Your task to perform on an android device: turn on the 24-hour format for clock Image 0: 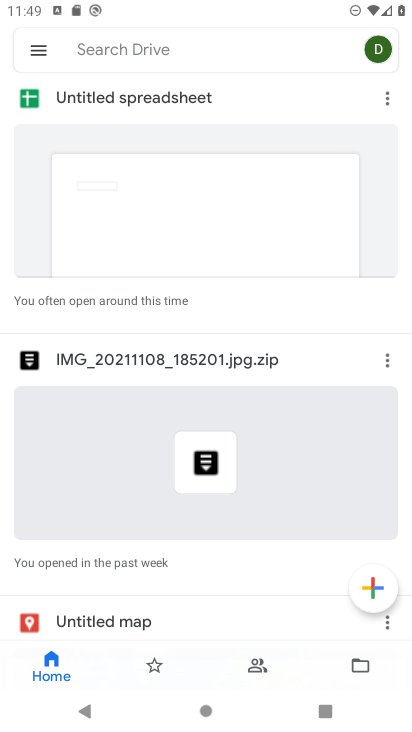
Step 0: press home button
Your task to perform on an android device: turn on the 24-hour format for clock Image 1: 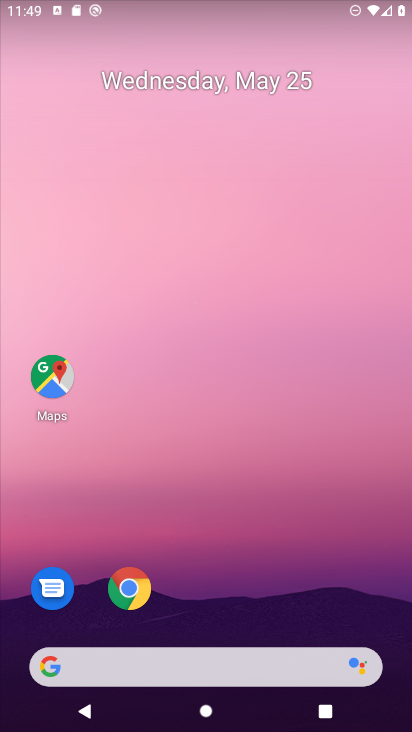
Step 1: drag from (47, 553) to (344, 78)
Your task to perform on an android device: turn on the 24-hour format for clock Image 2: 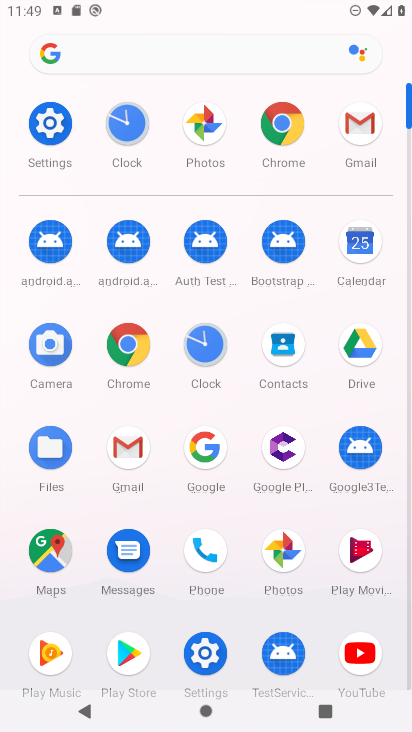
Step 2: click (54, 129)
Your task to perform on an android device: turn on the 24-hour format for clock Image 3: 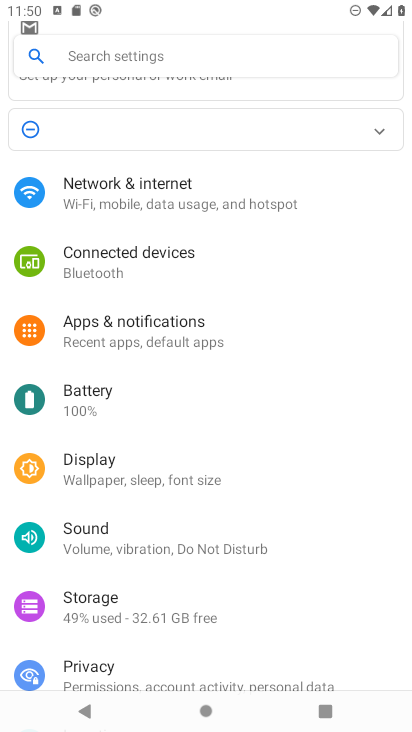
Step 3: press home button
Your task to perform on an android device: turn on the 24-hour format for clock Image 4: 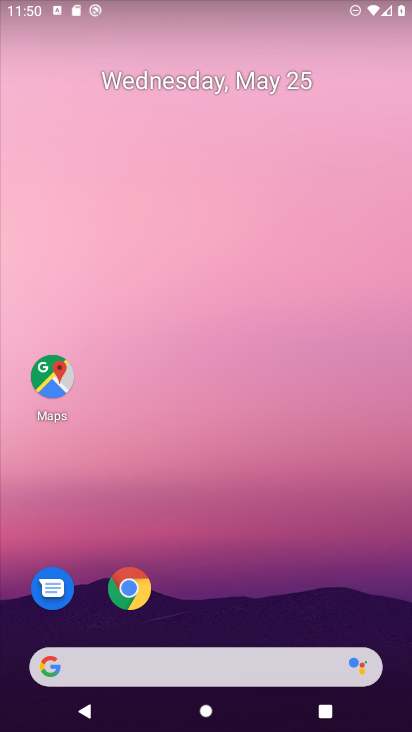
Step 4: drag from (42, 527) to (281, 92)
Your task to perform on an android device: turn on the 24-hour format for clock Image 5: 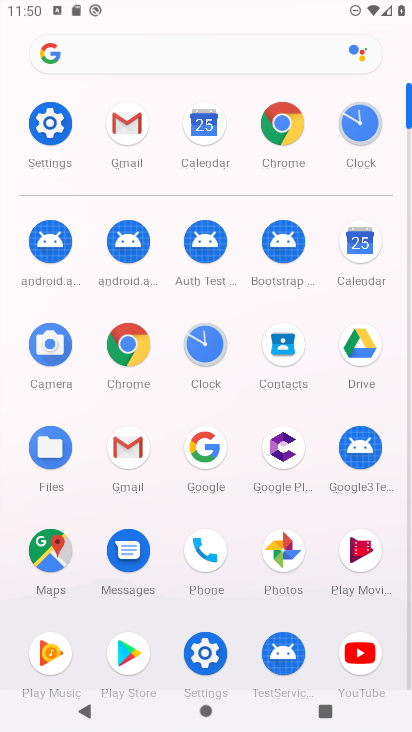
Step 5: click (198, 341)
Your task to perform on an android device: turn on the 24-hour format for clock Image 6: 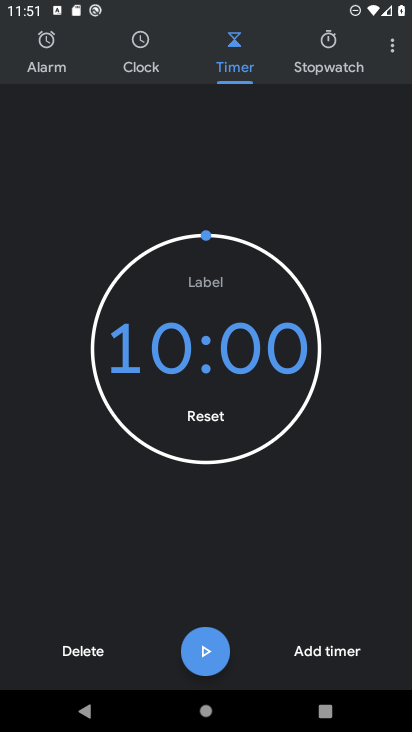
Step 6: click (394, 46)
Your task to perform on an android device: turn on the 24-hour format for clock Image 7: 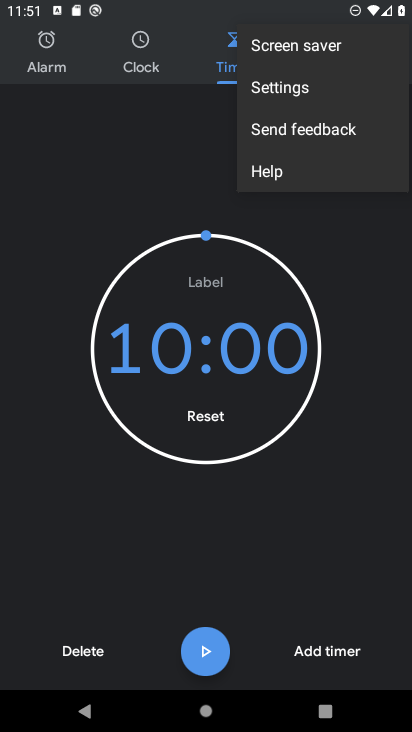
Step 7: click (299, 87)
Your task to perform on an android device: turn on the 24-hour format for clock Image 8: 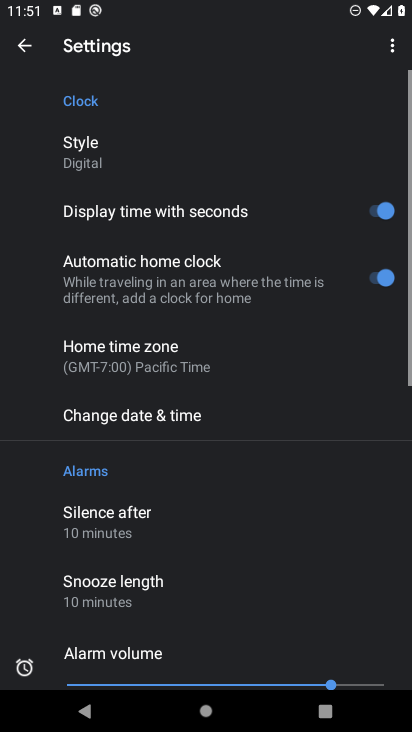
Step 8: click (111, 416)
Your task to perform on an android device: turn on the 24-hour format for clock Image 9: 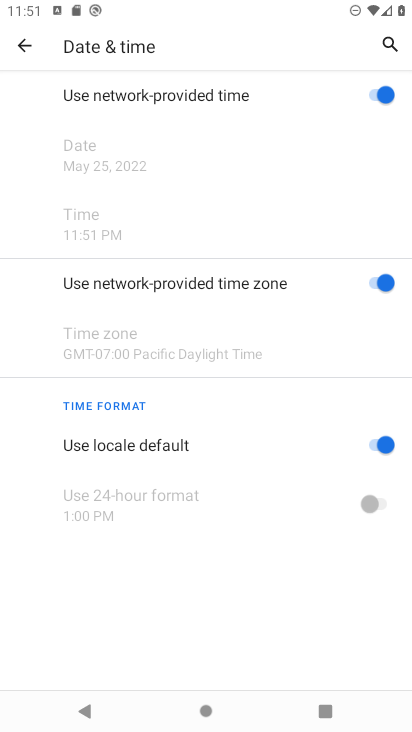
Step 9: click (389, 448)
Your task to perform on an android device: turn on the 24-hour format for clock Image 10: 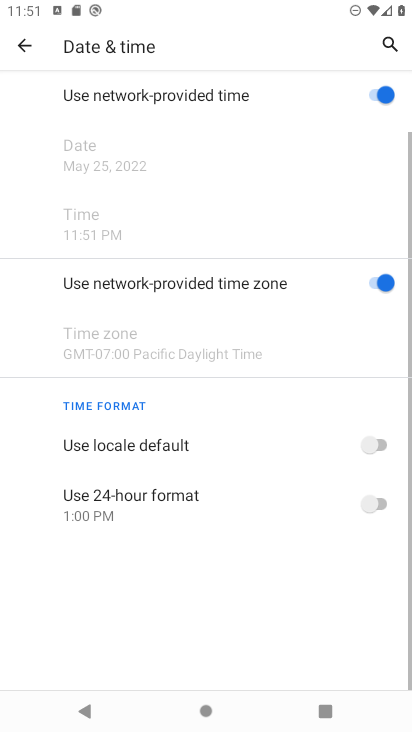
Step 10: click (376, 503)
Your task to perform on an android device: turn on the 24-hour format for clock Image 11: 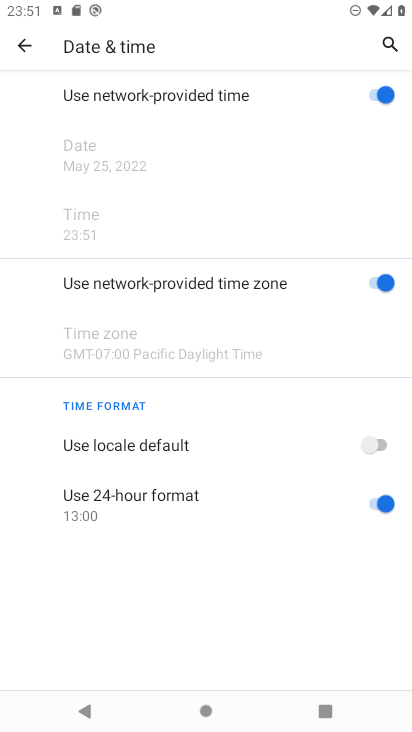
Step 11: task complete